Your task to perform on an android device: Clear the shopping cart on walmart. Add asus rog to the cart on walmart Image 0: 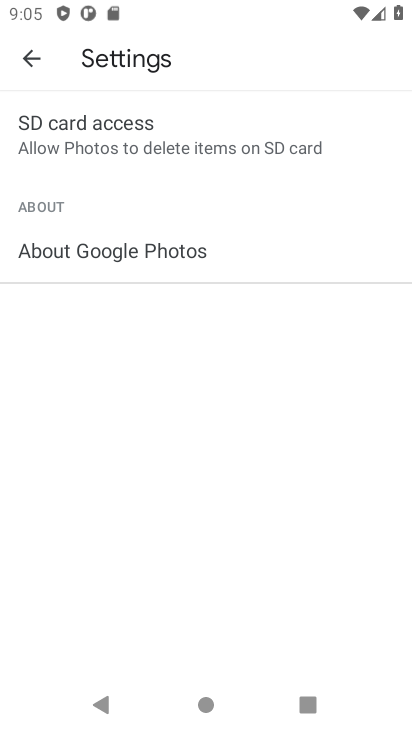
Step 0: press home button
Your task to perform on an android device: Clear the shopping cart on walmart. Add asus rog to the cart on walmart Image 1: 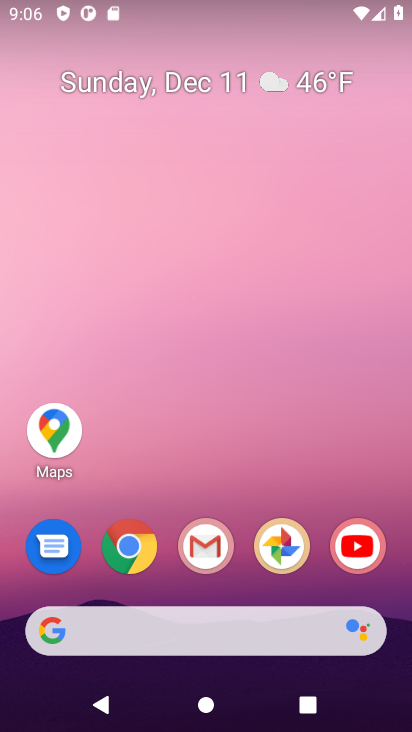
Step 1: click (134, 550)
Your task to perform on an android device: Clear the shopping cart on walmart. Add asus rog to the cart on walmart Image 2: 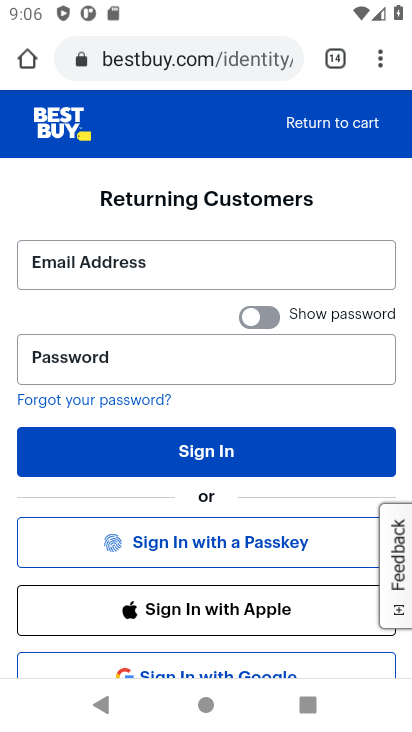
Step 2: click (174, 62)
Your task to perform on an android device: Clear the shopping cart on walmart. Add asus rog to the cart on walmart Image 3: 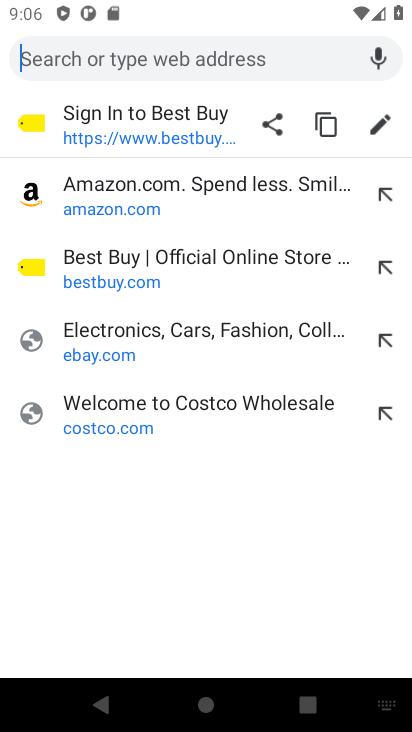
Step 3: type "walmart.com"
Your task to perform on an android device: Clear the shopping cart on walmart. Add asus rog to the cart on walmart Image 4: 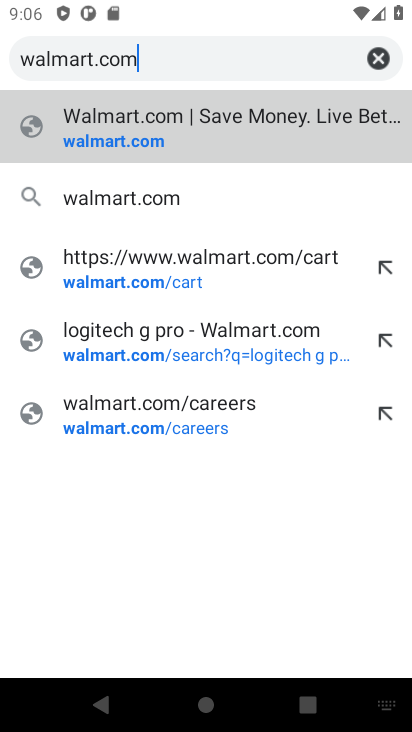
Step 4: click (119, 136)
Your task to perform on an android device: Clear the shopping cart on walmart. Add asus rog to the cart on walmart Image 5: 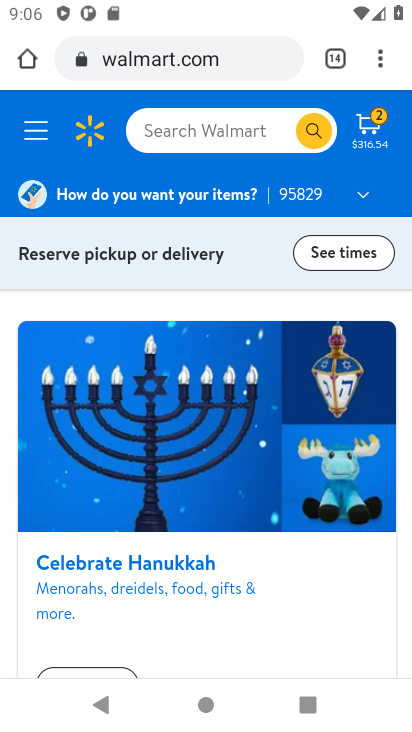
Step 5: click (367, 133)
Your task to perform on an android device: Clear the shopping cart on walmart. Add asus rog to the cart on walmart Image 6: 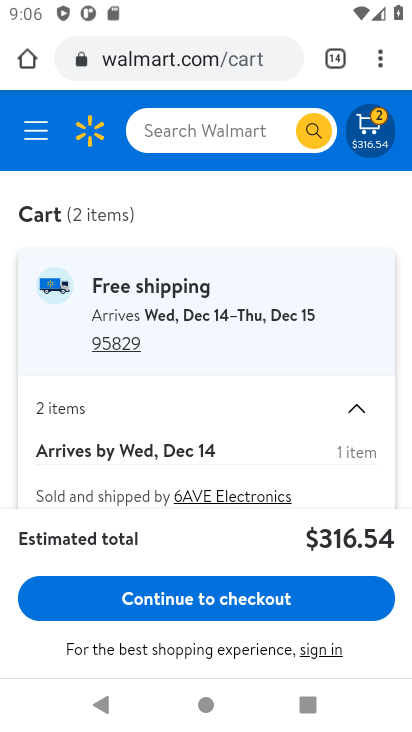
Step 6: drag from (244, 465) to (244, 189)
Your task to perform on an android device: Clear the shopping cart on walmart. Add asus rog to the cart on walmart Image 7: 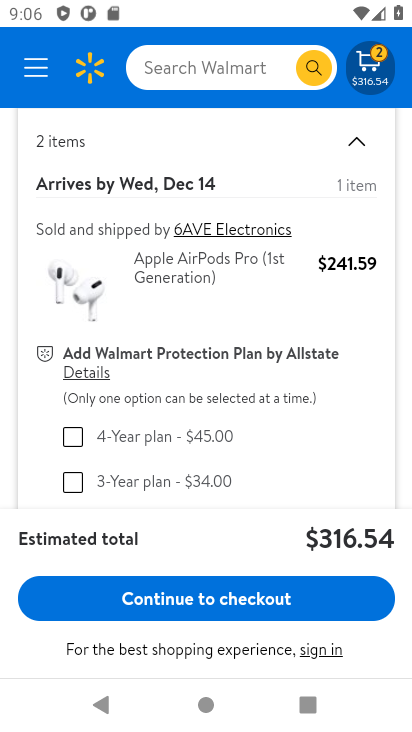
Step 7: drag from (205, 416) to (186, 151)
Your task to perform on an android device: Clear the shopping cart on walmart. Add asus rog to the cart on walmart Image 8: 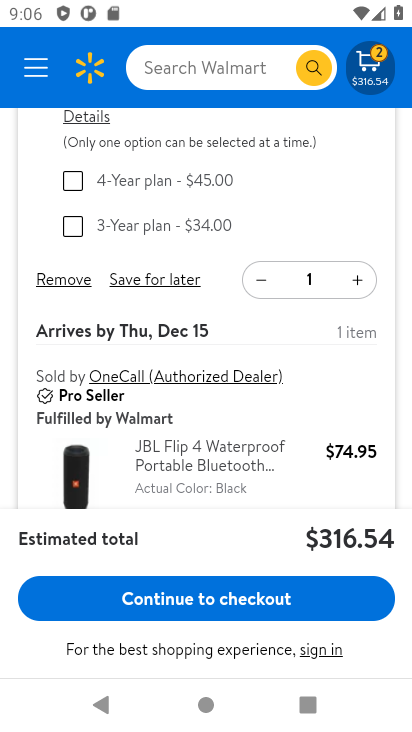
Step 8: click (51, 287)
Your task to perform on an android device: Clear the shopping cart on walmart. Add asus rog to the cart on walmart Image 9: 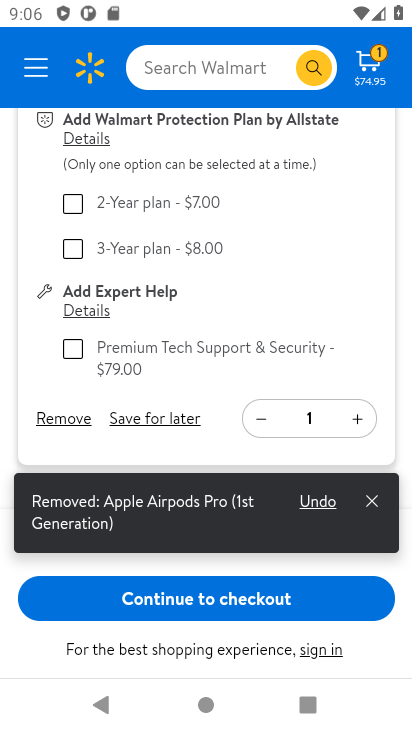
Step 9: drag from (179, 378) to (196, 156)
Your task to perform on an android device: Clear the shopping cart on walmart. Add asus rog to the cart on walmart Image 10: 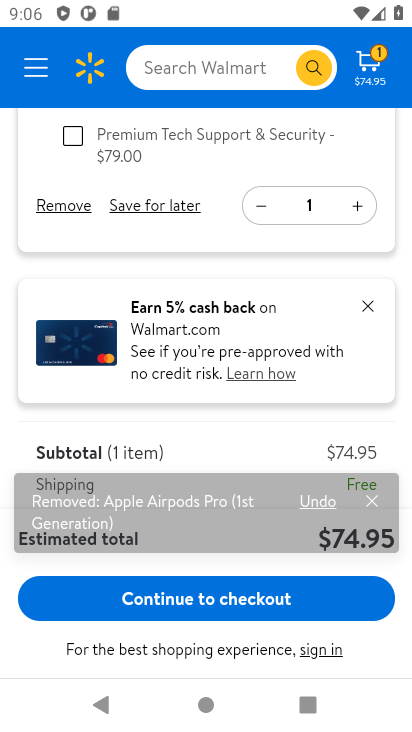
Step 10: click (53, 207)
Your task to perform on an android device: Clear the shopping cart on walmart. Add asus rog to the cart on walmart Image 11: 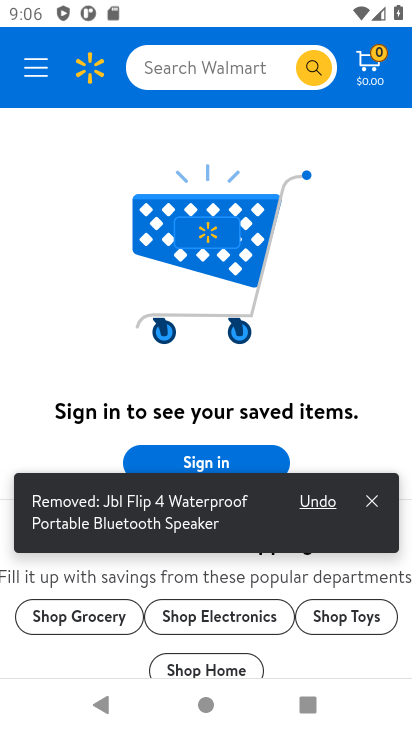
Step 11: drag from (315, 293) to (327, 385)
Your task to perform on an android device: Clear the shopping cart on walmart. Add asus rog to the cart on walmart Image 12: 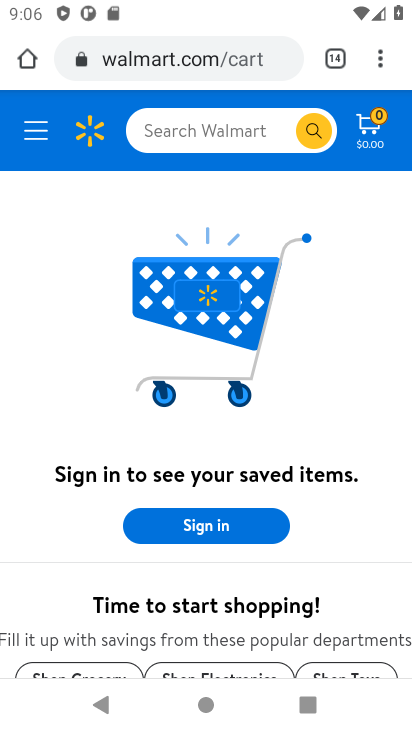
Step 12: click (189, 132)
Your task to perform on an android device: Clear the shopping cart on walmart. Add asus rog to the cart on walmart Image 13: 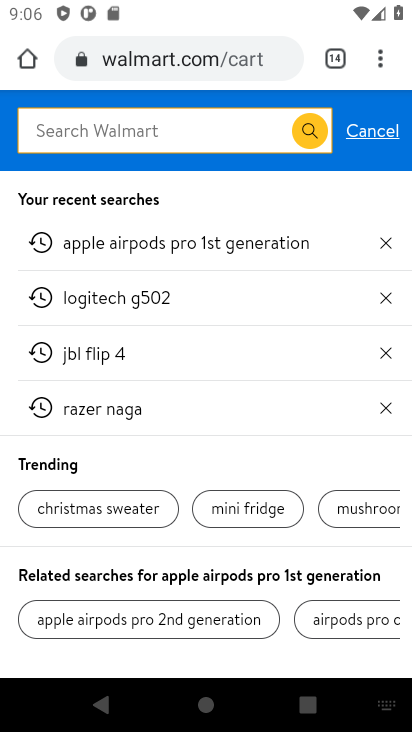
Step 13: type "asus rog"
Your task to perform on an android device: Clear the shopping cart on walmart. Add asus rog to the cart on walmart Image 14: 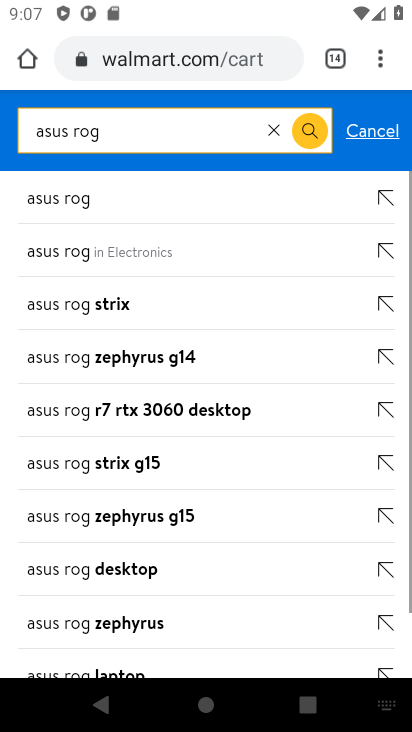
Step 14: click (75, 206)
Your task to perform on an android device: Clear the shopping cart on walmart. Add asus rog to the cart on walmart Image 15: 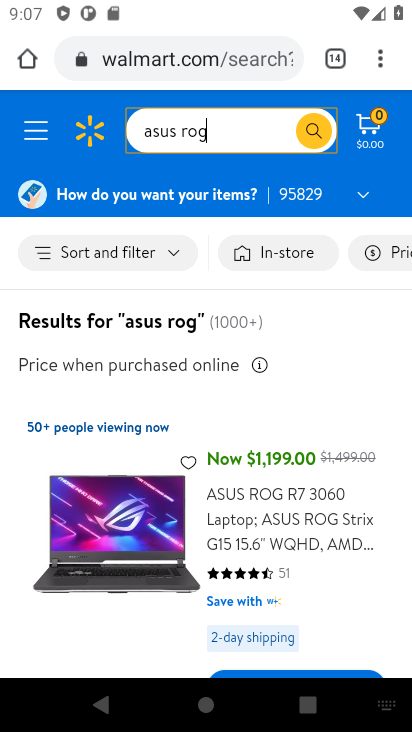
Step 15: drag from (198, 404) to (198, 99)
Your task to perform on an android device: Clear the shopping cart on walmart. Add asus rog to the cart on walmart Image 16: 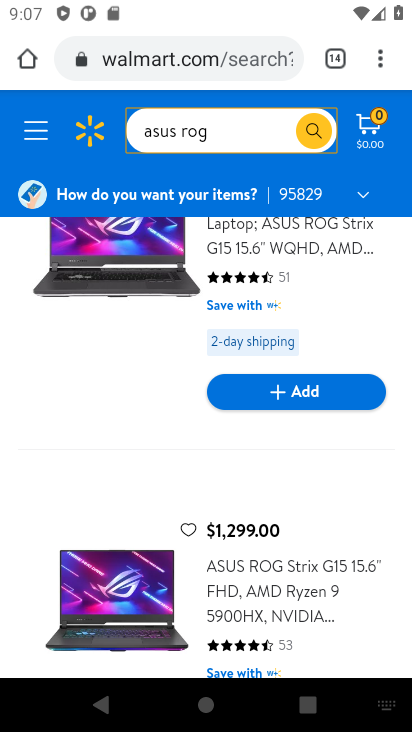
Step 16: click (295, 392)
Your task to perform on an android device: Clear the shopping cart on walmart. Add asus rog to the cart on walmart Image 17: 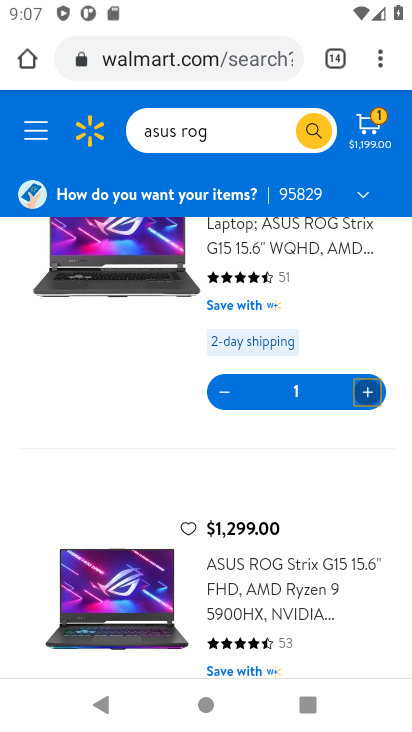
Step 17: task complete